Your task to perform on an android device: Search for desk lamps on article.com Image 0: 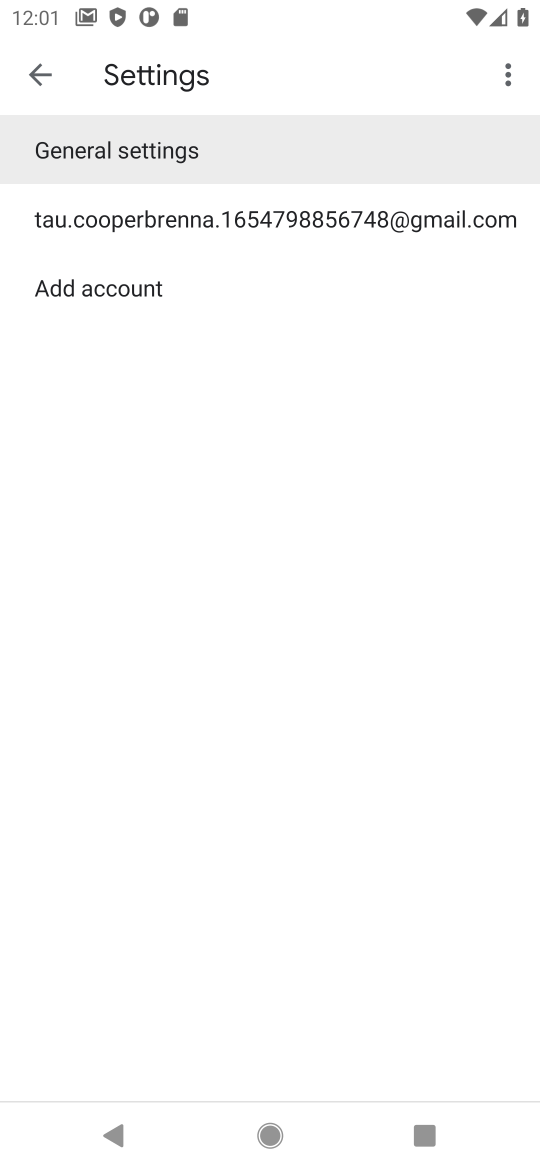
Step 0: press back button
Your task to perform on an android device: Search for desk lamps on article.com Image 1: 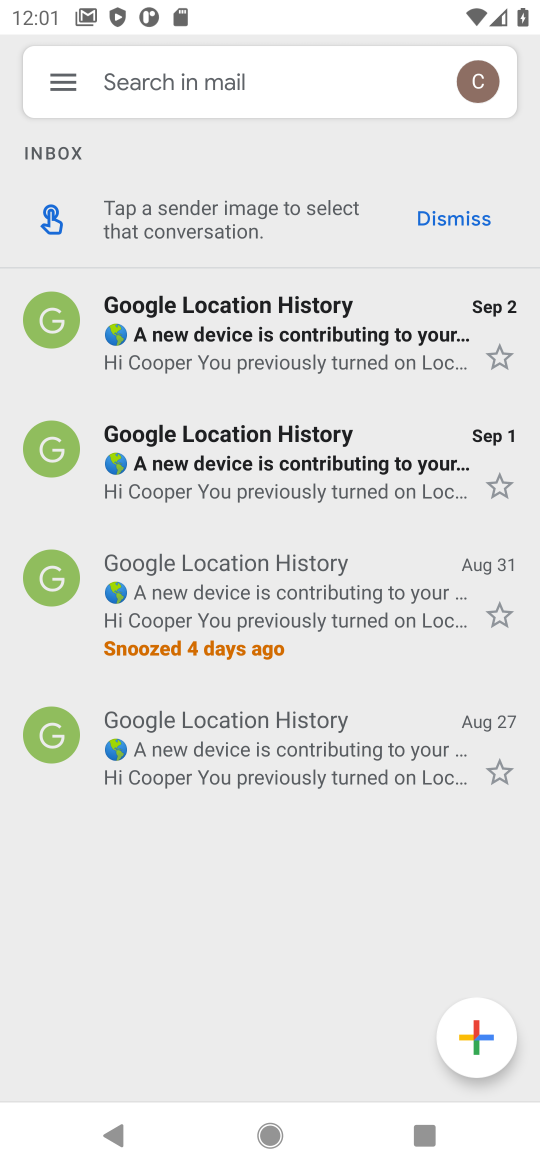
Step 1: press back button
Your task to perform on an android device: Search for desk lamps on article.com Image 2: 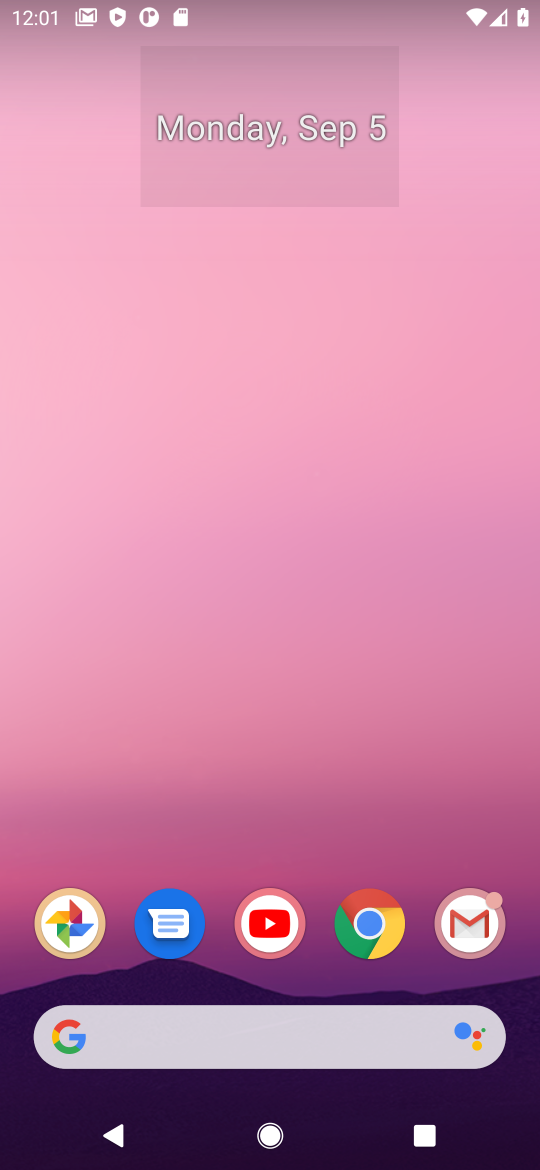
Step 2: click (381, 910)
Your task to perform on an android device: Search for desk lamps on article.com Image 3: 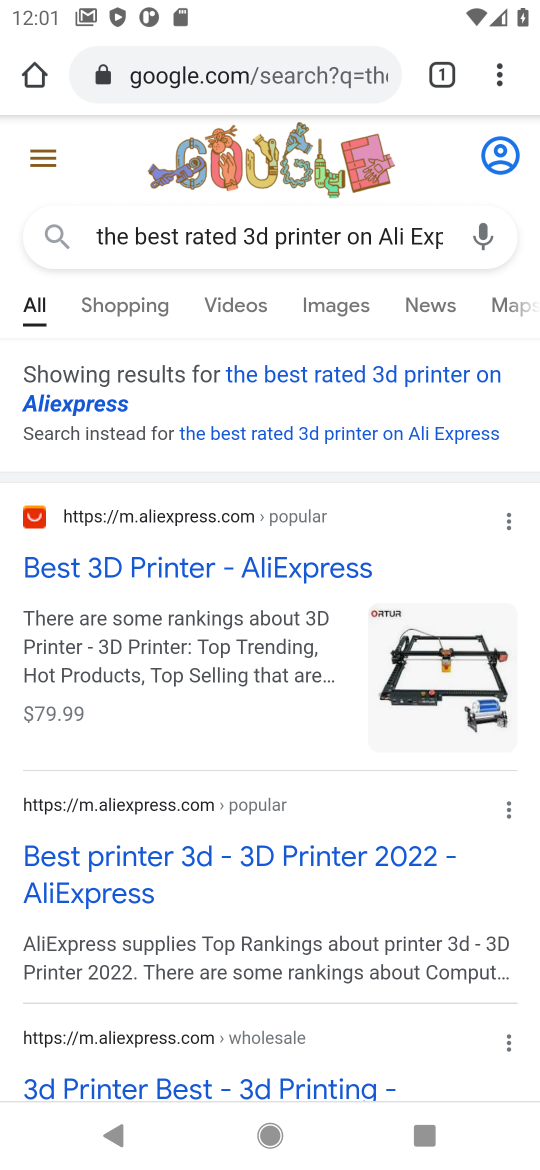
Step 3: click (208, 72)
Your task to perform on an android device: Search for desk lamps on article.com Image 4: 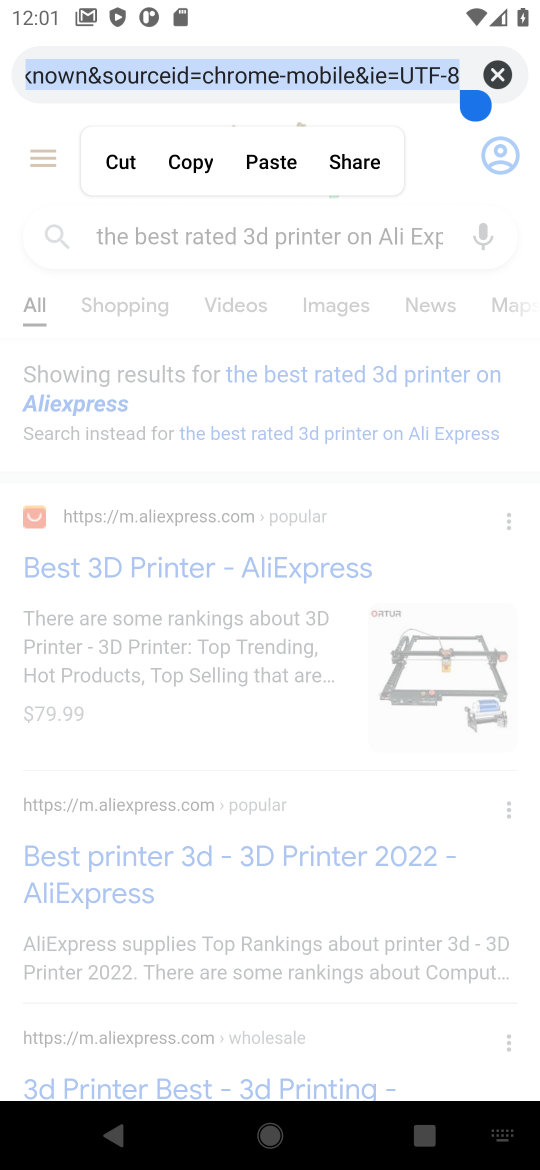
Step 4: click (490, 75)
Your task to perform on an android device: Search for desk lamps on article.com Image 5: 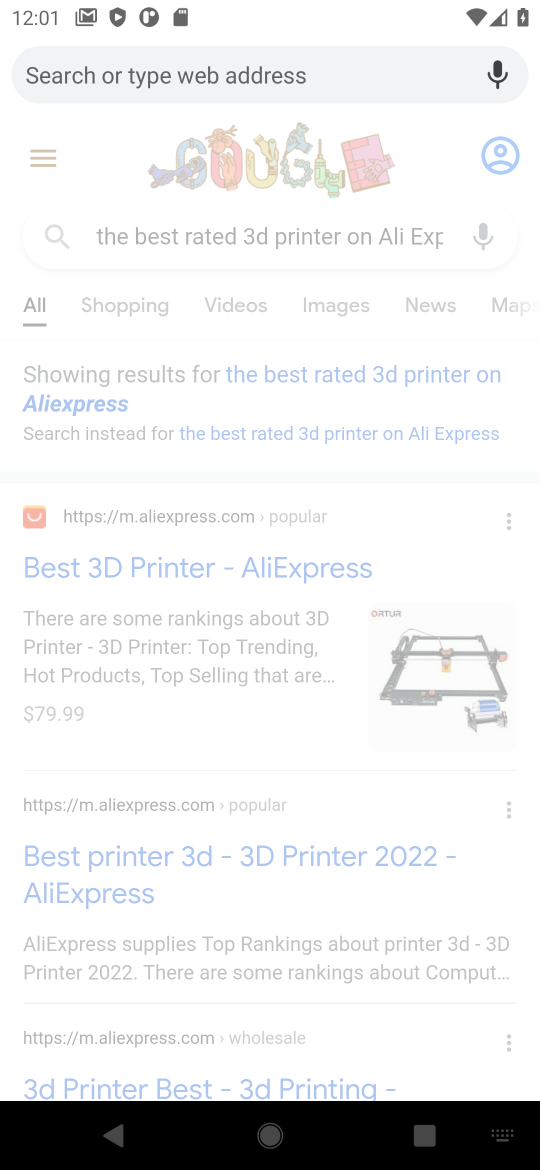
Step 5: type "desk lamps on article.com"
Your task to perform on an android device: Search for desk lamps on article.com Image 6: 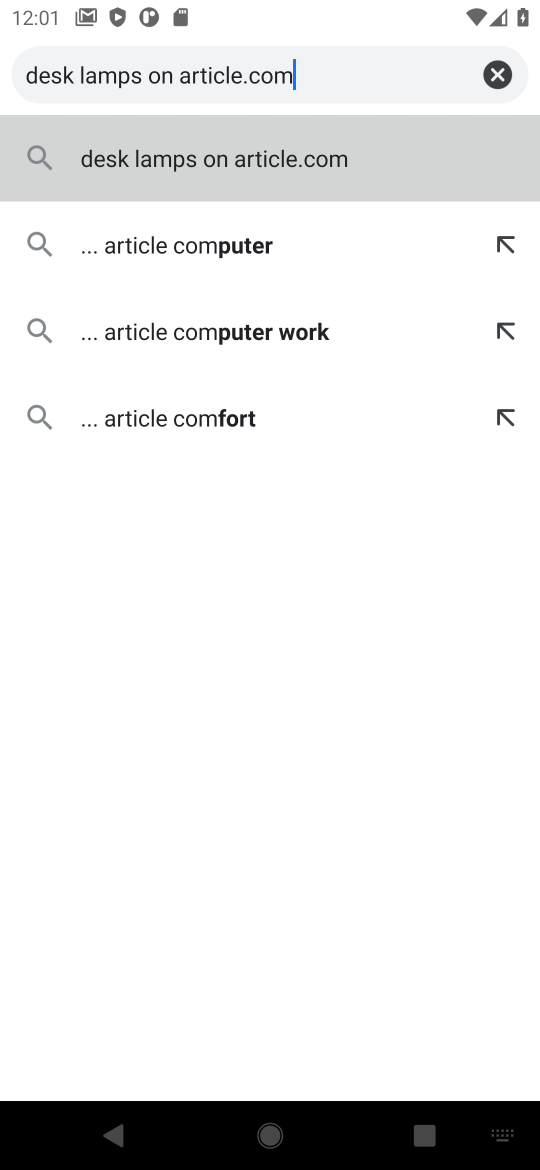
Step 6: click (267, 183)
Your task to perform on an android device: Search for desk lamps on article.com Image 7: 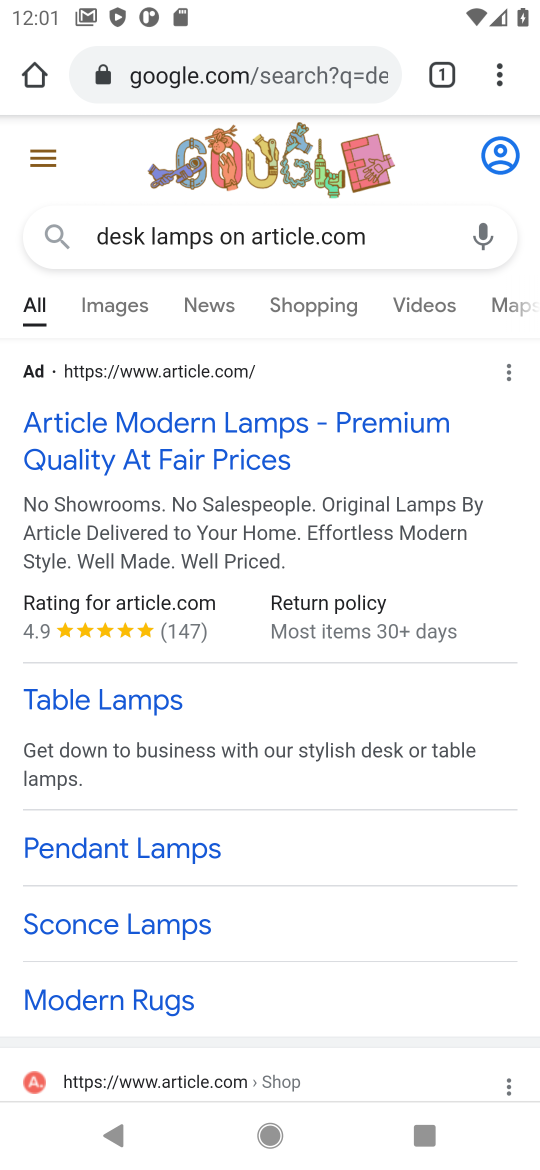
Step 7: task complete